Your task to perform on an android device: turn off data saver in the chrome app Image 0: 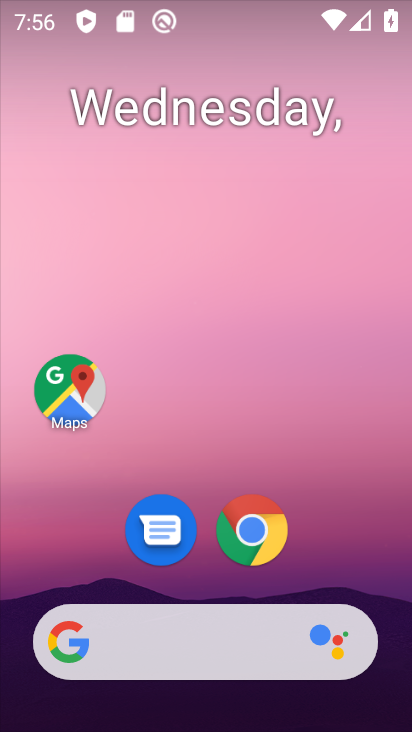
Step 0: click (250, 525)
Your task to perform on an android device: turn off data saver in the chrome app Image 1: 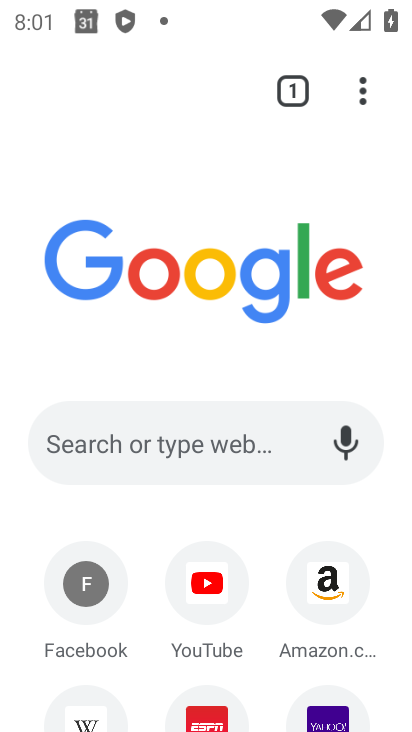
Step 1: drag from (358, 87) to (125, 559)
Your task to perform on an android device: turn off data saver in the chrome app Image 2: 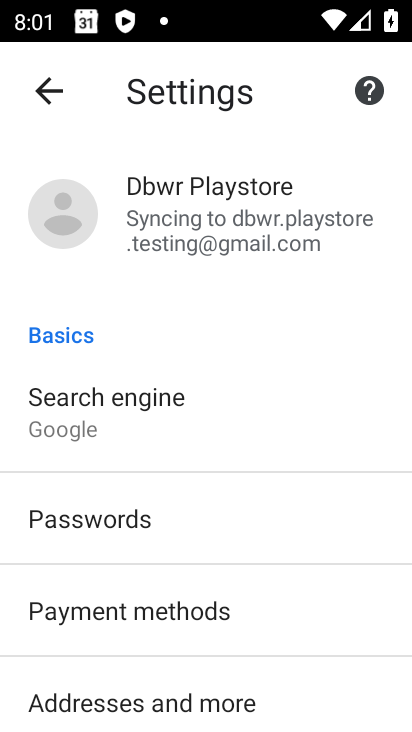
Step 2: drag from (183, 579) to (219, 154)
Your task to perform on an android device: turn off data saver in the chrome app Image 3: 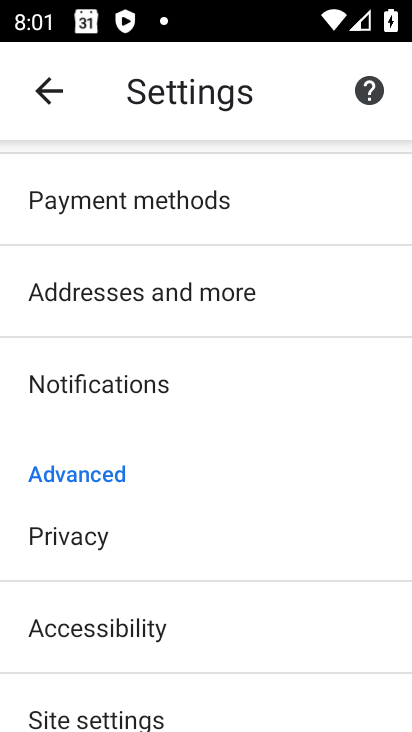
Step 3: drag from (171, 687) to (203, 267)
Your task to perform on an android device: turn off data saver in the chrome app Image 4: 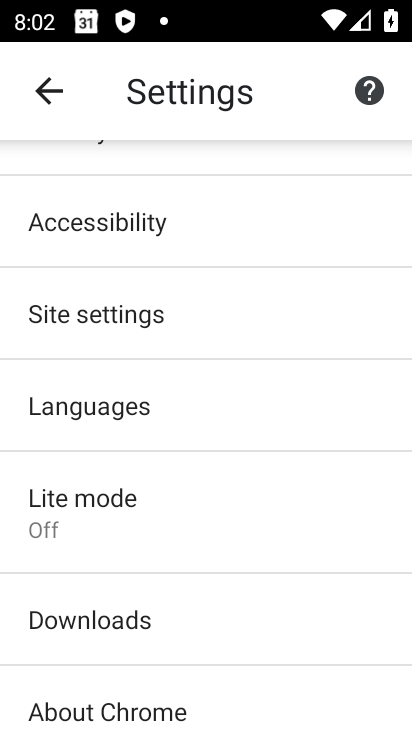
Step 4: click (121, 503)
Your task to perform on an android device: turn off data saver in the chrome app Image 5: 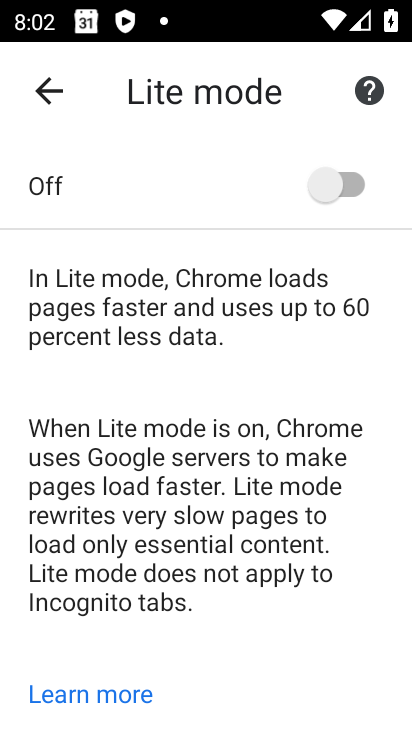
Step 5: task complete